Your task to perform on an android device: make emails show in primary in the gmail app Image 0: 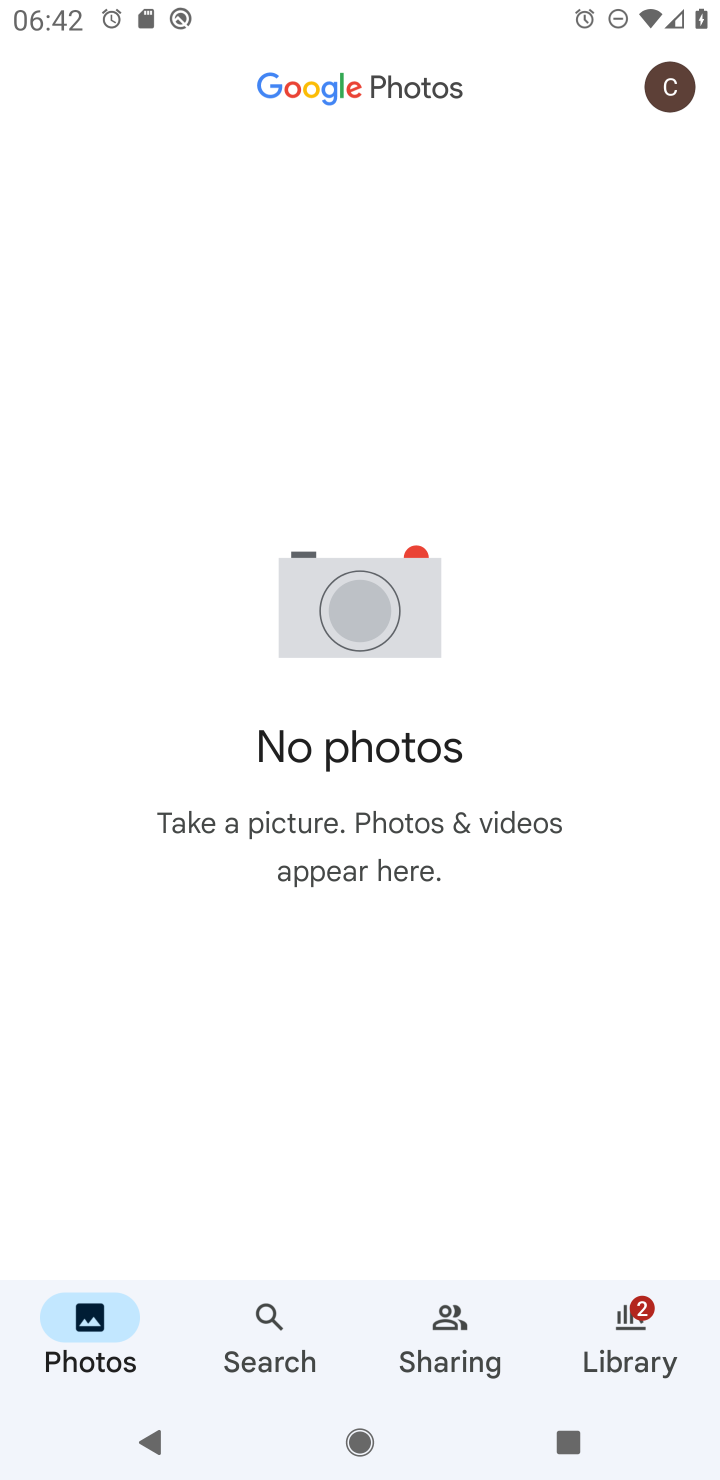
Step 0: press home button
Your task to perform on an android device: make emails show in primary in the gmail app Image 1: 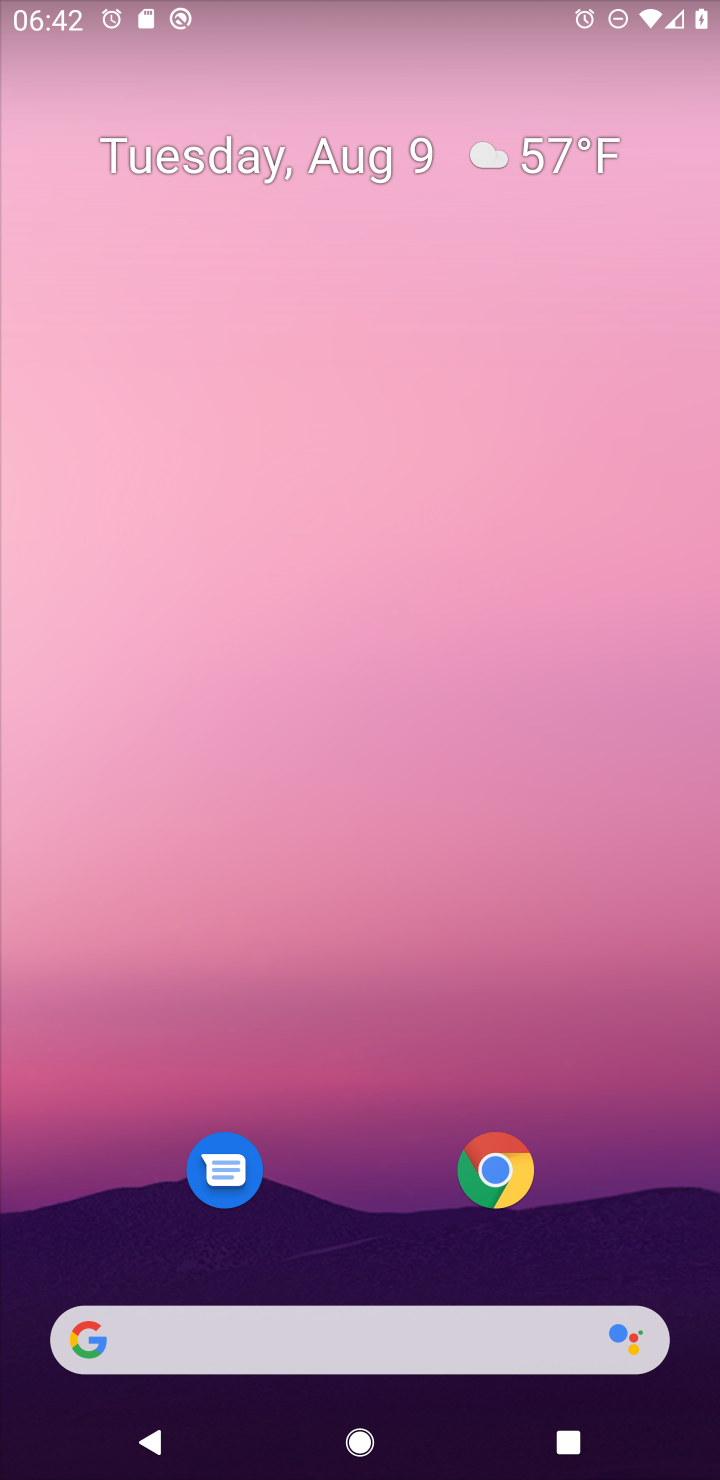
Step 1: drag from (389, 1250) to (316, 45)
Your task to perform on an android device: make emails show in primary in the gmail app Image 2: 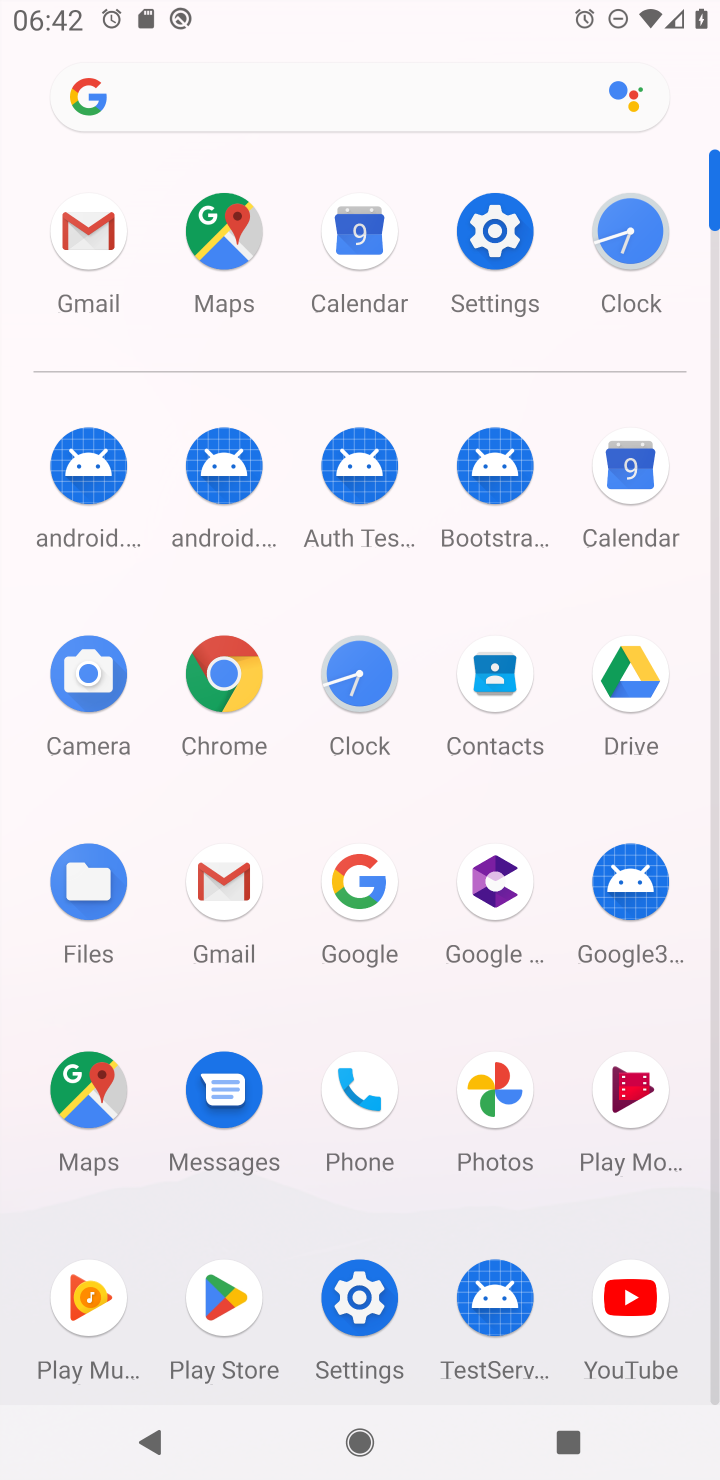
Step 2: click (87, 221)
Your task to perform on an android device: make emails show in primary in the gmail app Image 3: 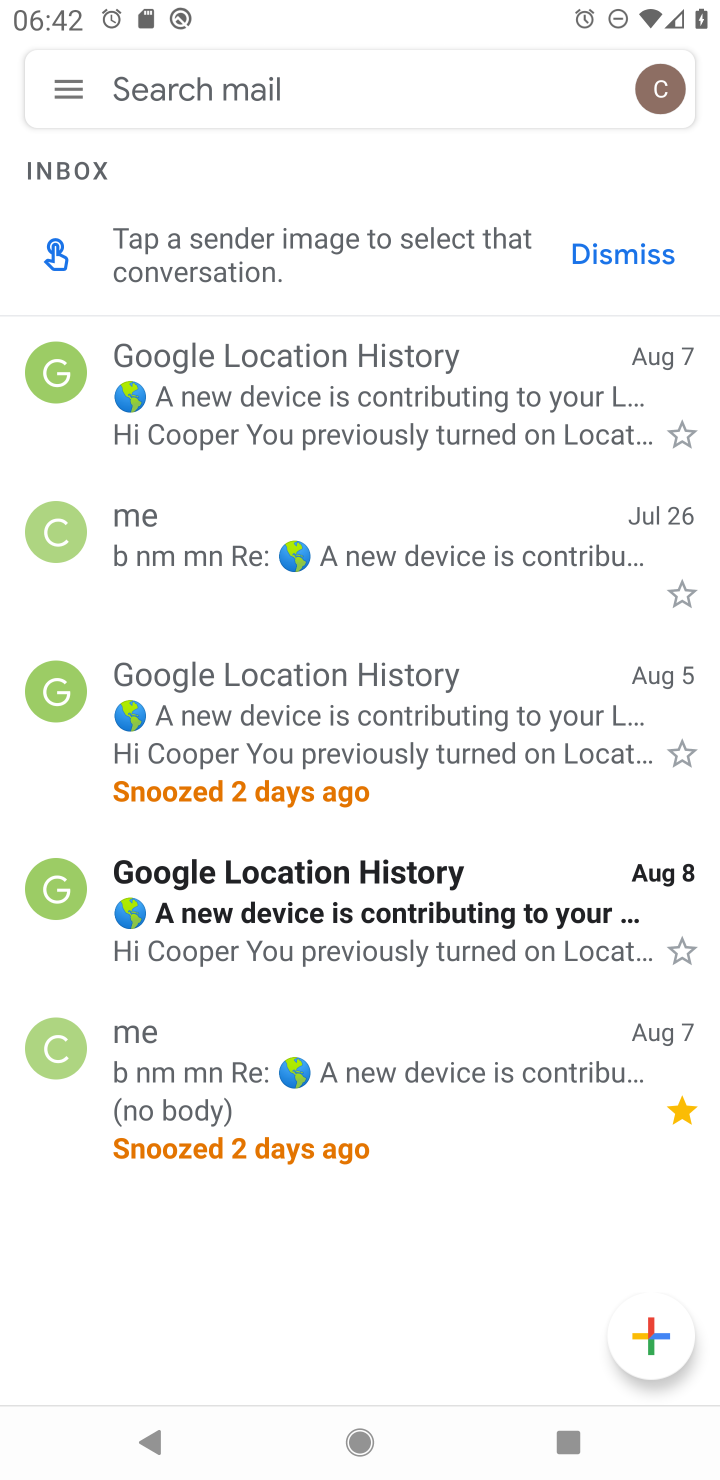
Step 3: click (72, 92)
Your task to perform on an android device: make emails show in primary in the gmail app Image 4: 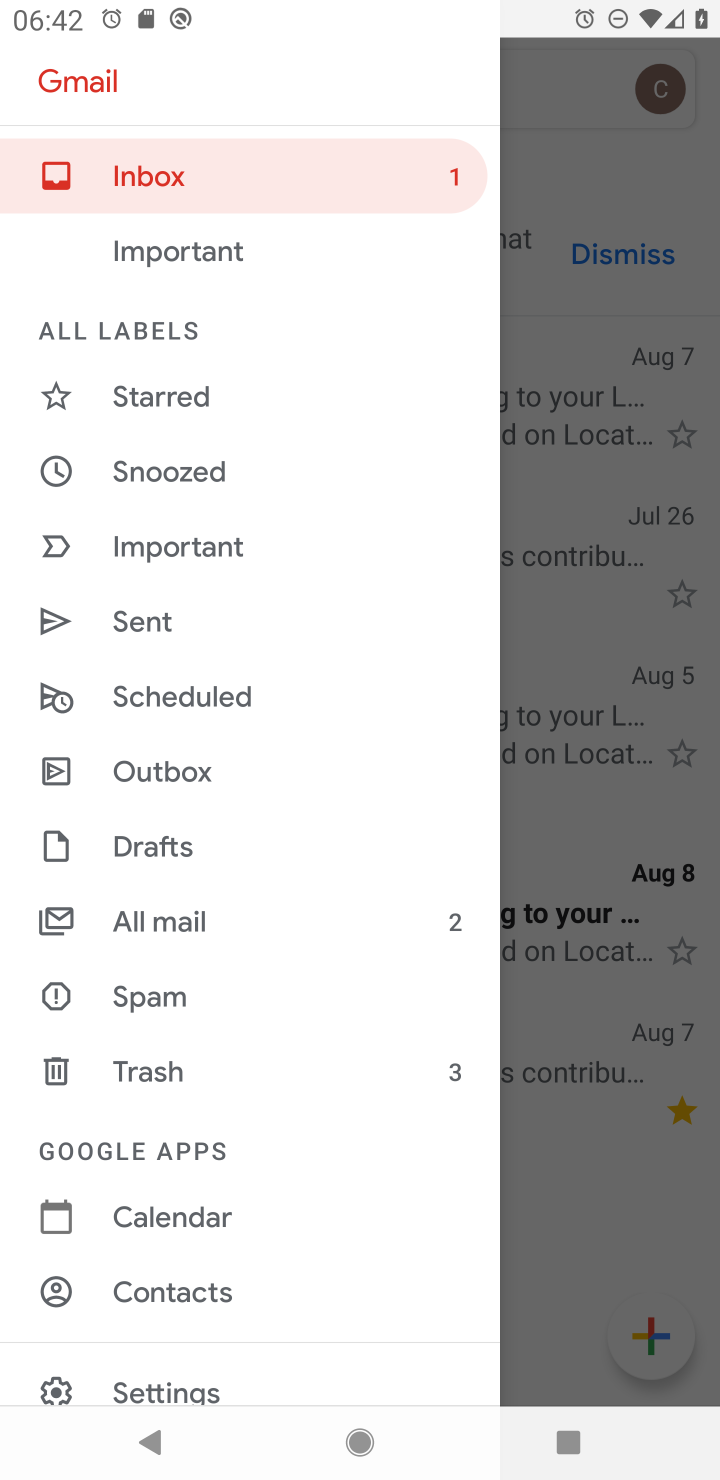
Step 4: click (147, 1391)
Your task to perform on an android device: make emails show in primary in the gmail app Image 5: 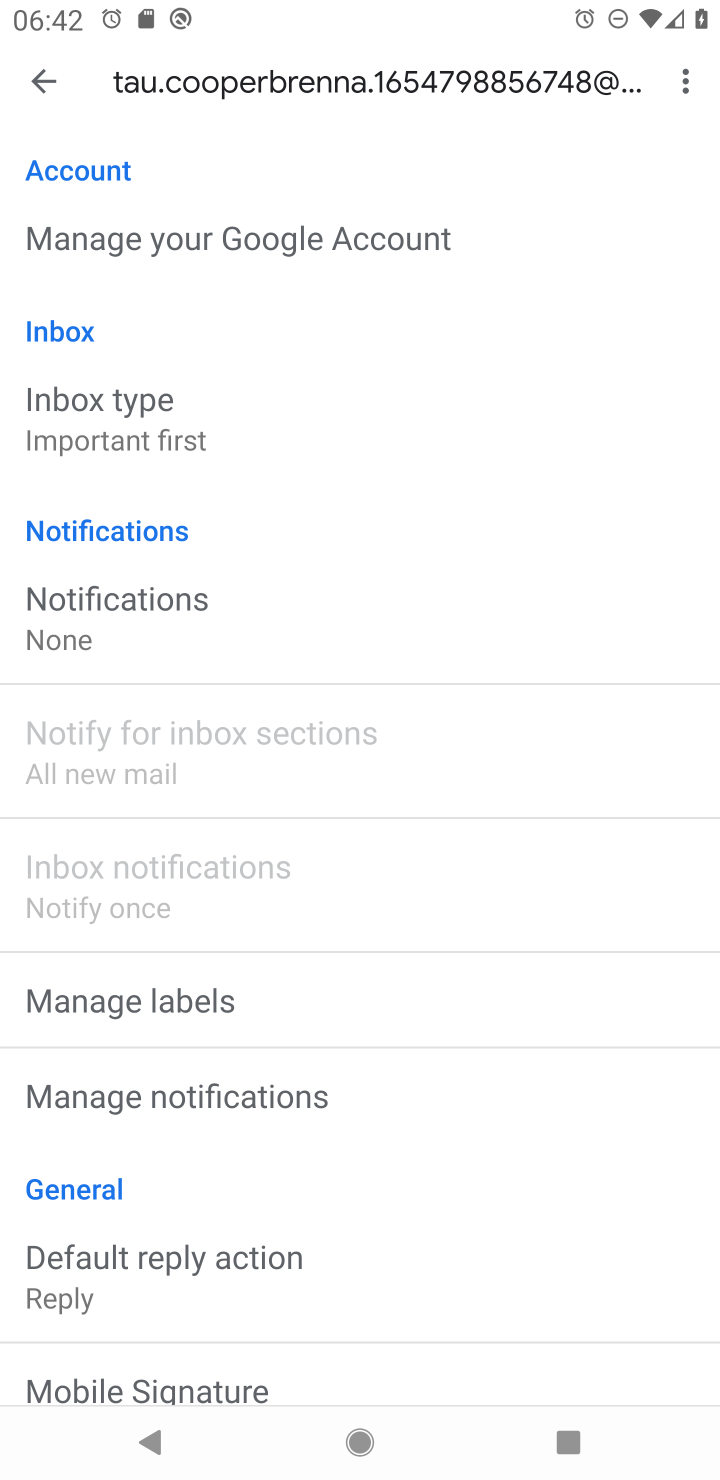
Step 5: task complete